Your task to perform on an android device: Find coffee shops on Maps Image 0: 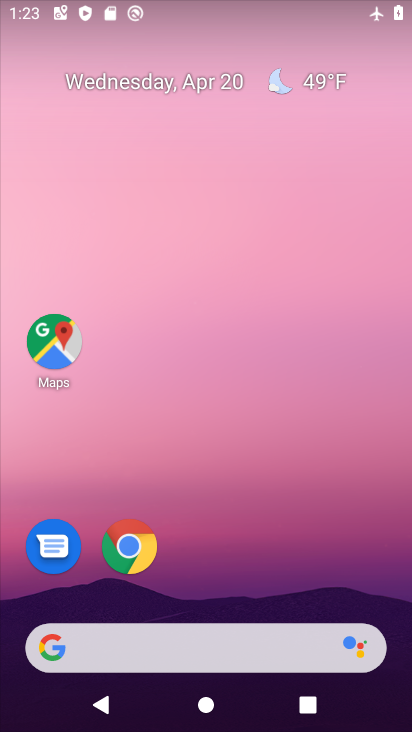
Step 0: click (278, 286)
Your task to perform on an android device: Find coffee shops on Maps Image 1: 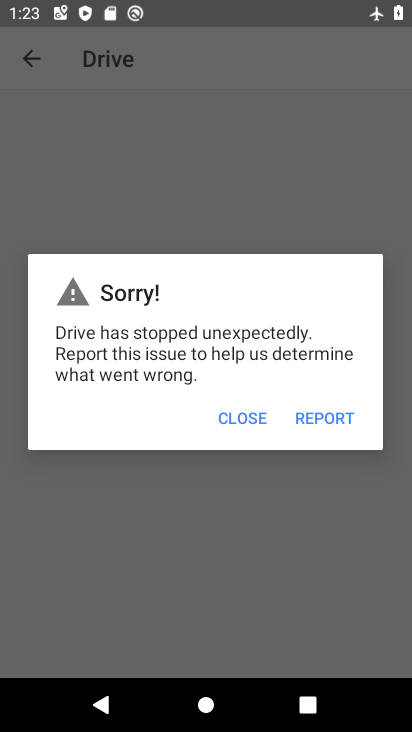
Step 1: drag from (219, 567) to (214, 486)
Your task to perform on an android device: Find coffee shops on Maps Image 2: 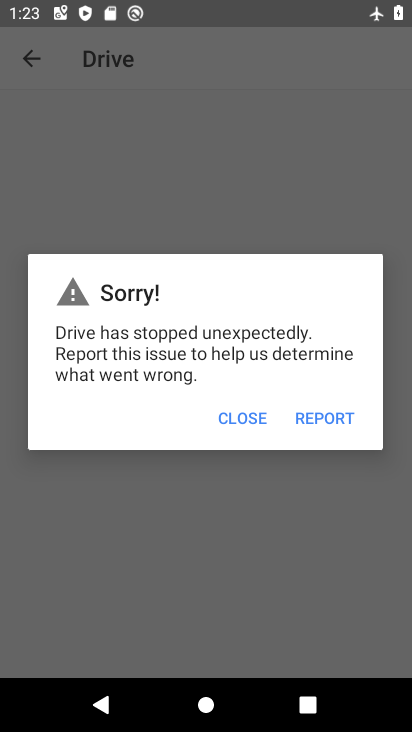
Step 2: press home button
Your task to perform on an android device: Find coffee shops on Maps Image 3: 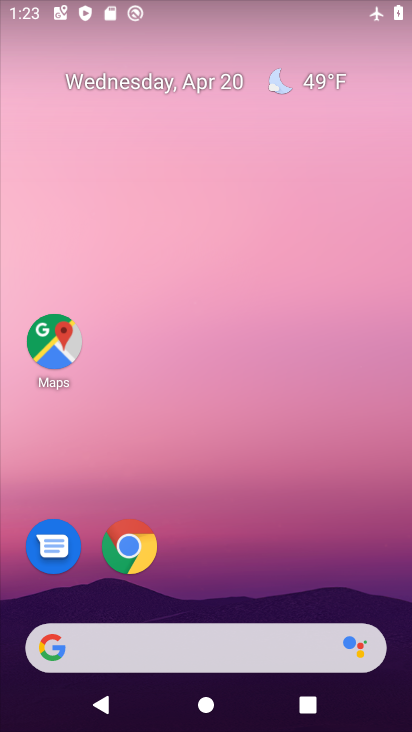
Step 3: drag from (221, 508) to (241, 220)
Your task to perform on an android device: Find coffee shops on Maps Image 4: 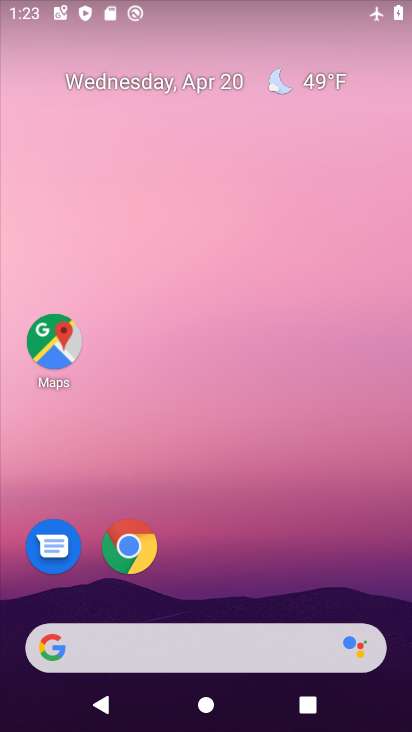
Step 4: drag from (258, 539) to (307, 254)
Your task to perform on an android device: Find coffee shops on Maps Image 5: 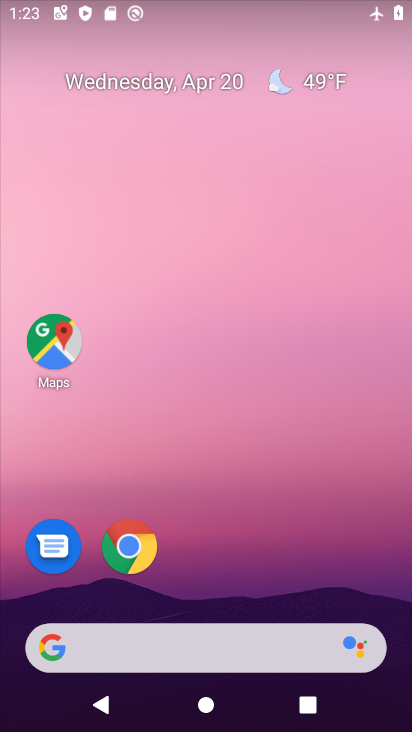
Step 5: drag from (253, 563) to (279, 184)
Your task to perform on an android device: Find coffee shops on Maps Image 6: 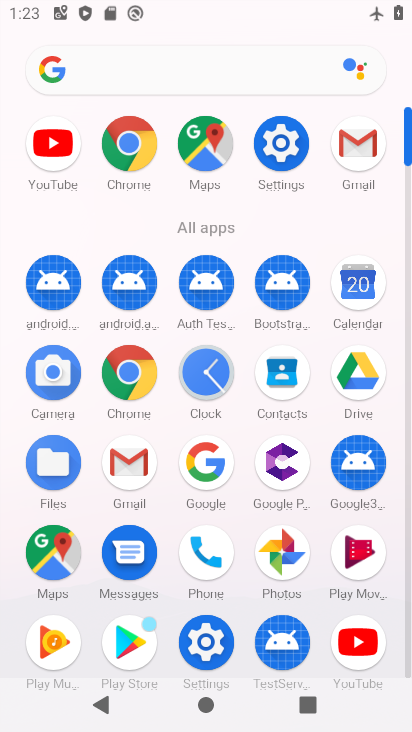
Step 6: click (203, 141)
Your task to perform on an android device: Find coffee shops on Maps Image 7: 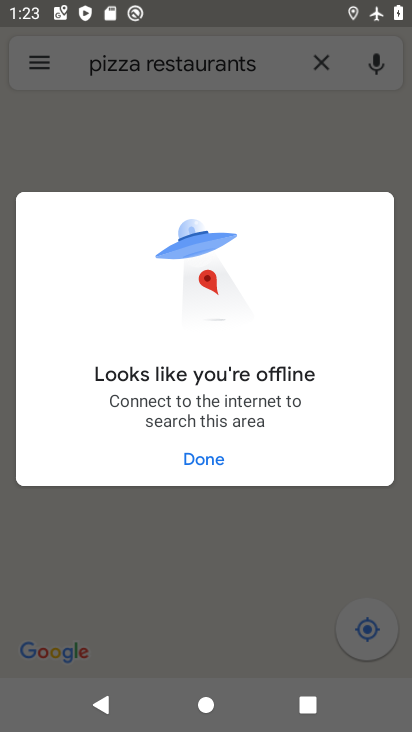
Step 7: click (203, 456)
Your task to perform on an android device: Find coffee shops on Maps Image 8: 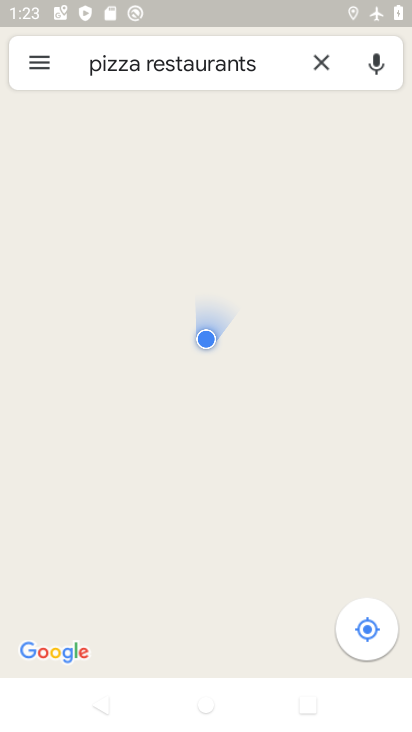
Step 8: click (322, 67)
Your task to perform on an android device: Find coffee shops on Maps Image 9: 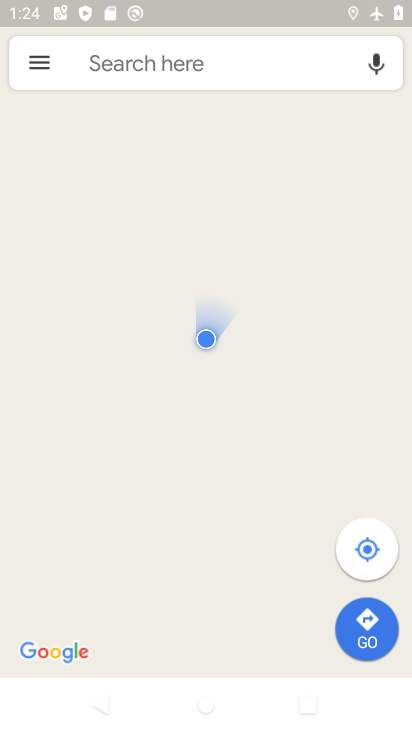
Step 9: click (241, 48)
Your task to perform on an android device: Find coffee shops on Maps Image 10: 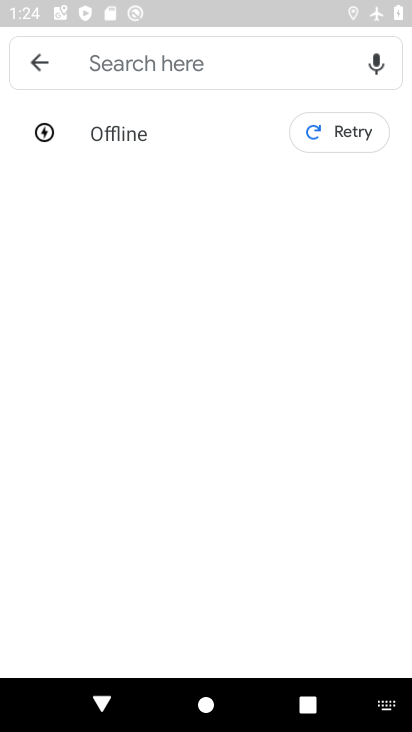
Step 10: type "coffee shops"
Your task to perform on an android device: Find coffee shops on Maps Image 11: 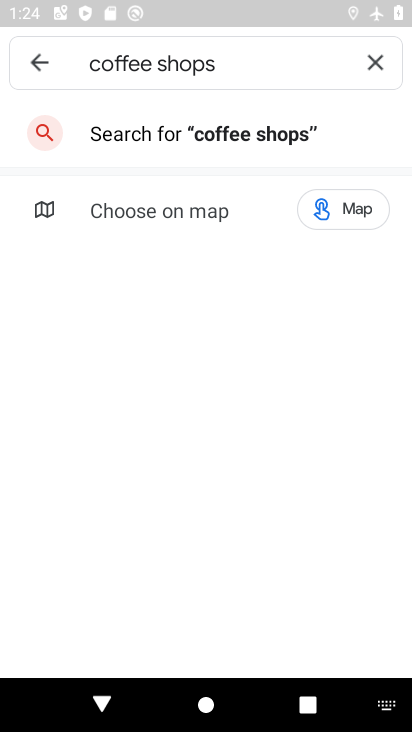
Step 11: click (244, 130)
Your task to perform on an android device: Find coffee shops on Maps Image 12: 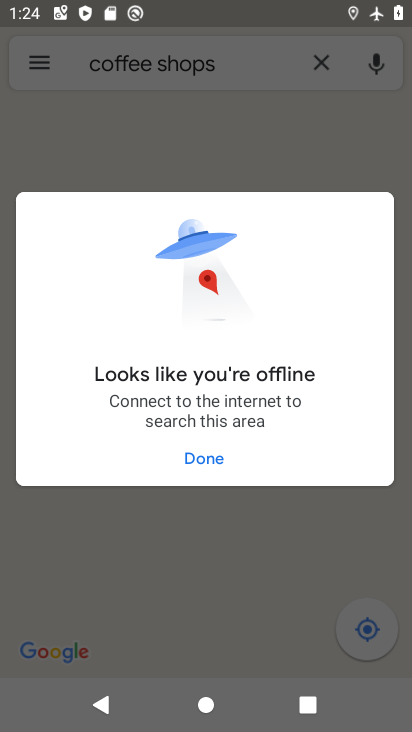
Step 12: task complete